Your task to perform on an android device: check the backup settings in the google photos Image 0: 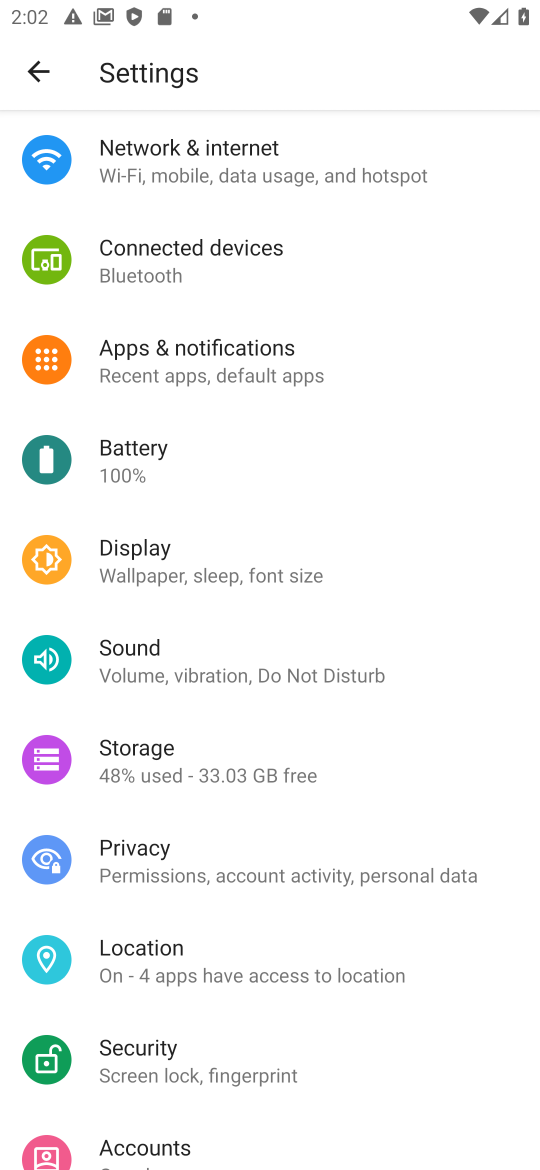
Step 0: press home button
Your task to perform on an android device: check the backup settings in the google photos Image 1: 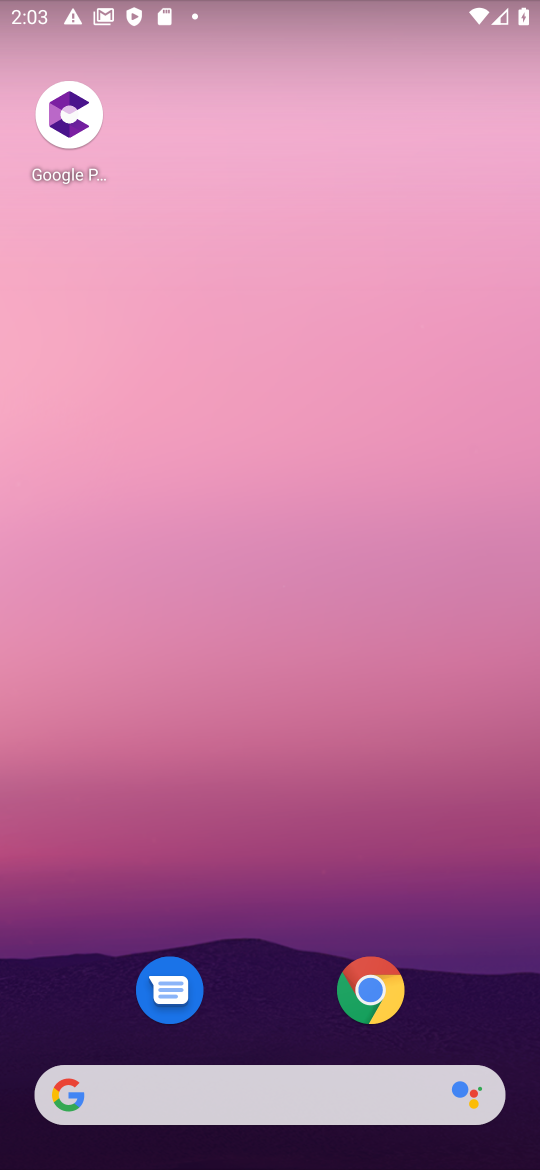
Step 1: drag from (203, 1047) to (172, 140)
Your task to perform on an android device: check the backup settings in the google photos Image 2: 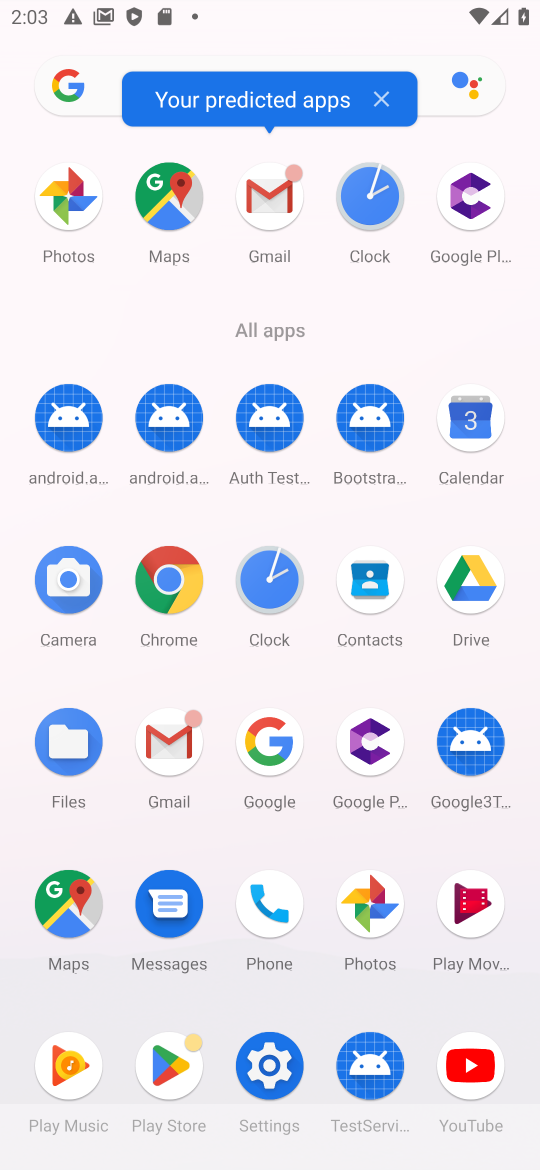
Step 2: click (366, 922)
Your task to perform on an android device: check the backup settings in the google photos Image 3: 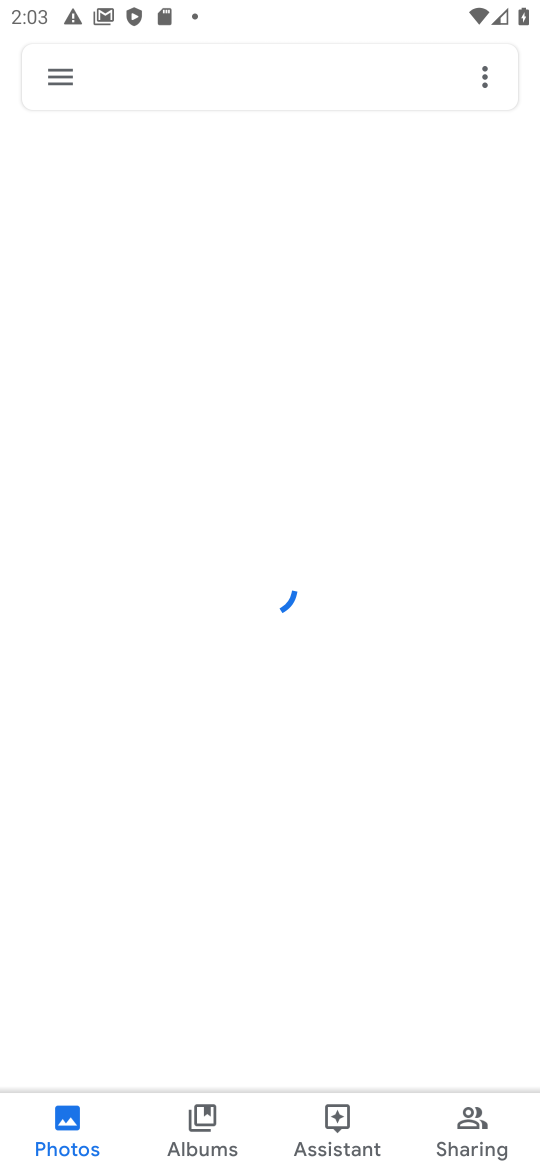
Step 3: click (61, 78)
Your task to perform on an android device: check the backup settings in the google photos Image 4: 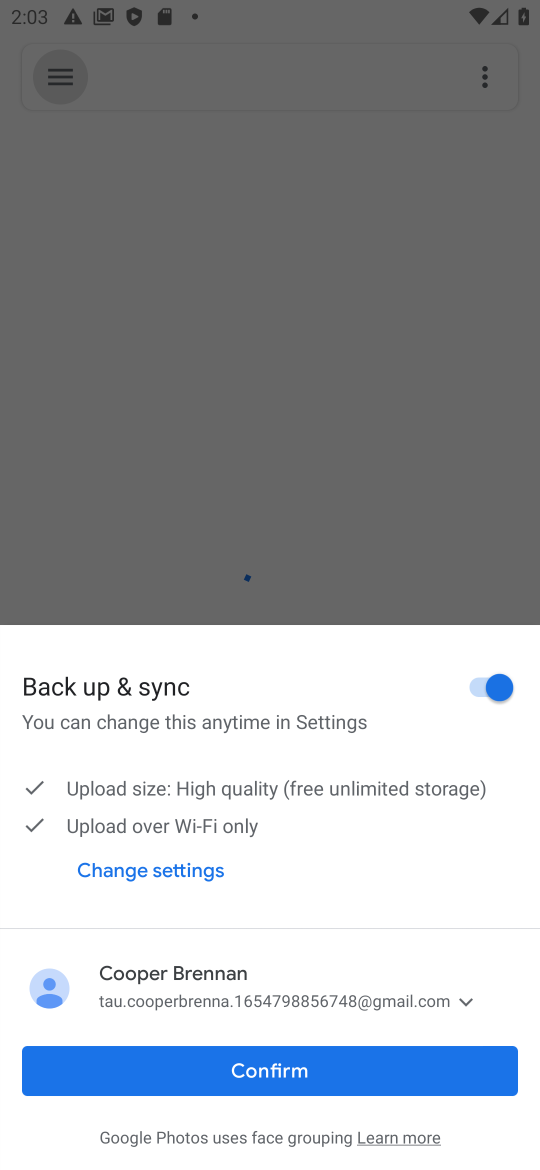
Step 4: click (261, 1081)
Your task to perform on an android device: check the backup settings in the google photos Image 5: 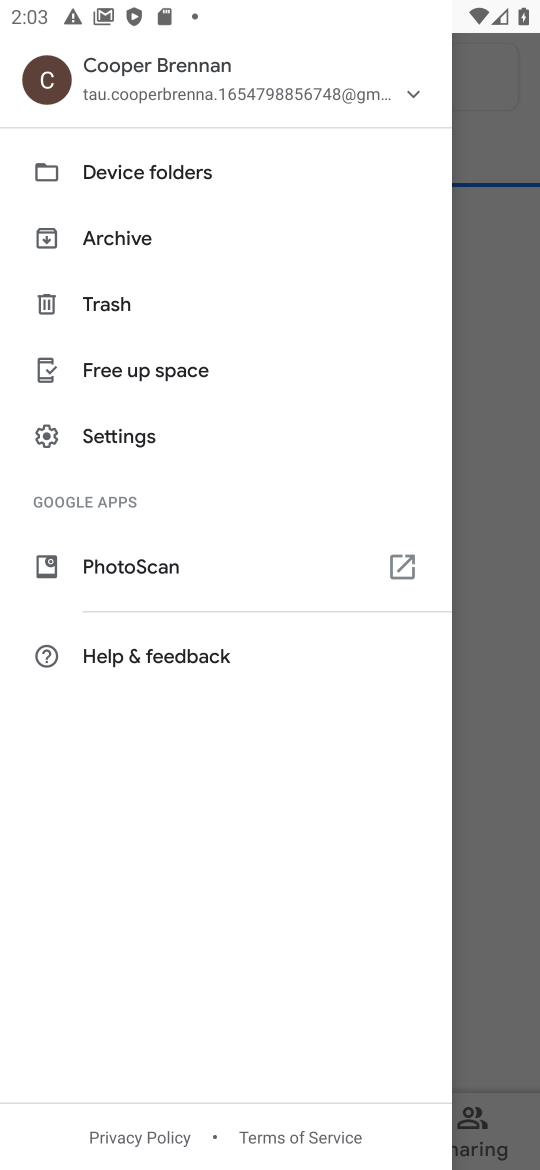
Step 5: click (104, 435)
Your task to perform on an android device: check the backup settings in the google photos Image 6: 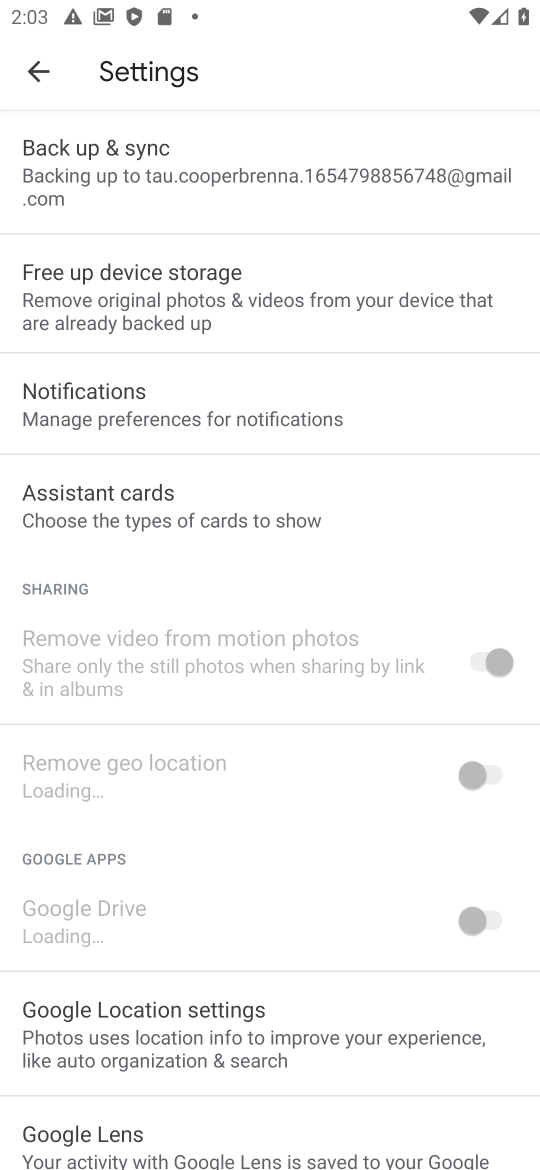
Step 6: click (104, 155)
Your task to perform on an android device: check the backup settings in the google photos Image 7: 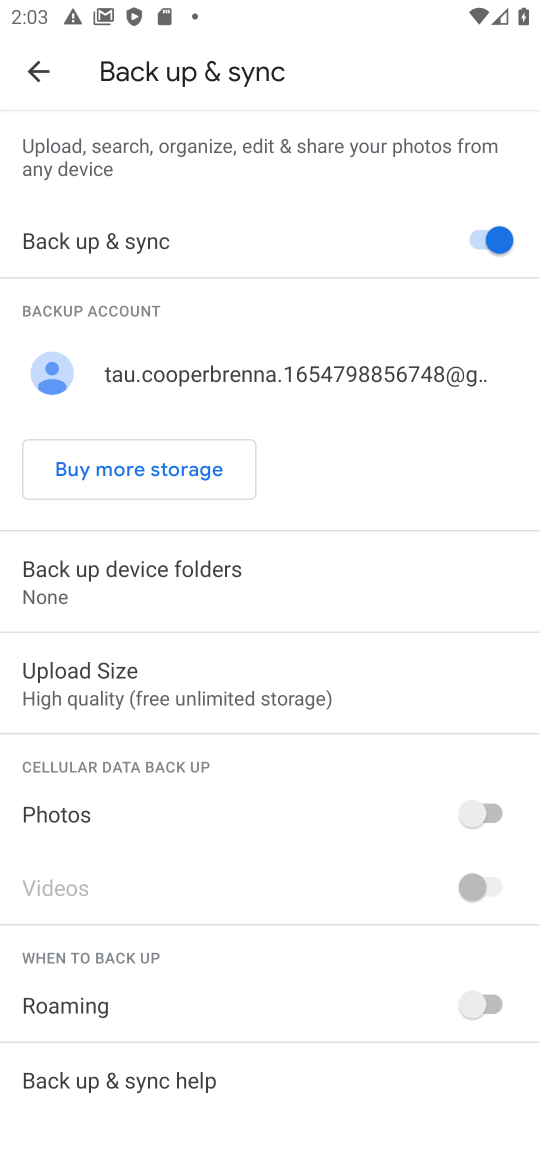
Step 7: task complete